Your task to perform on an android device: check the backup settings in the google photos Image 0: 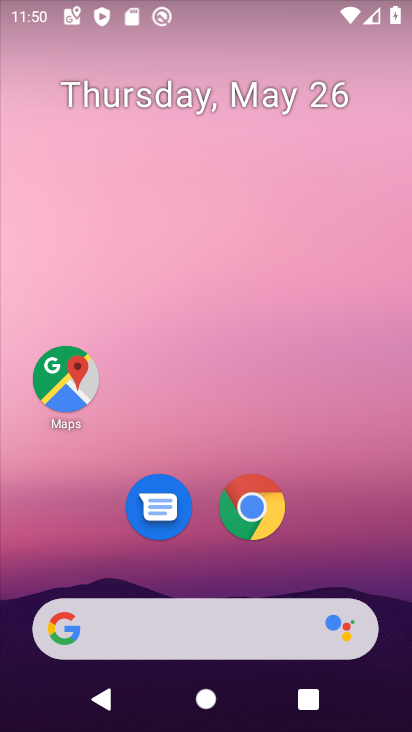
Step 0: drag from (360, 467) to (306, 87)
Your task to perform on an android device: check the backup settings in the google photos Image 1: 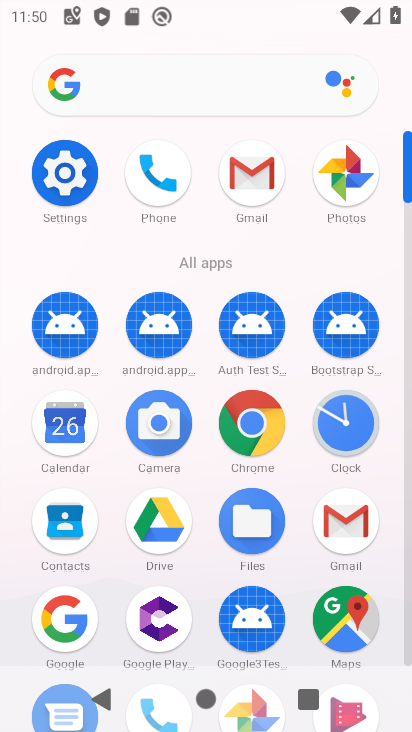
Step 1: drag from (206, 582) to (232, 313)
Your task to perform on an android device: check the backup settings in the google photos Image 2: 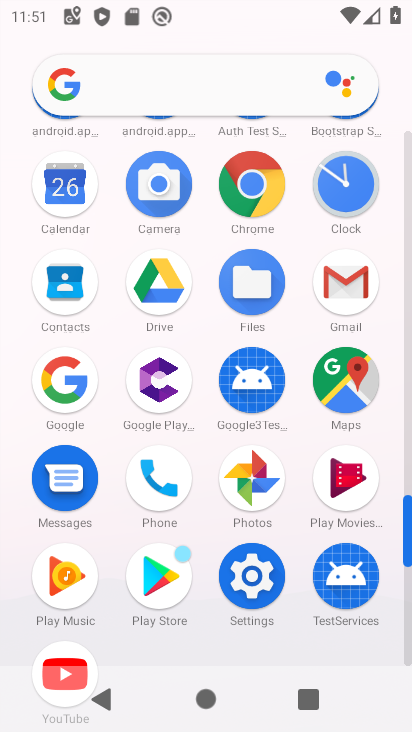
Step 2: click (262, 490)
Your task to perform on an android device: check the backup settings in the google photos Image 3: 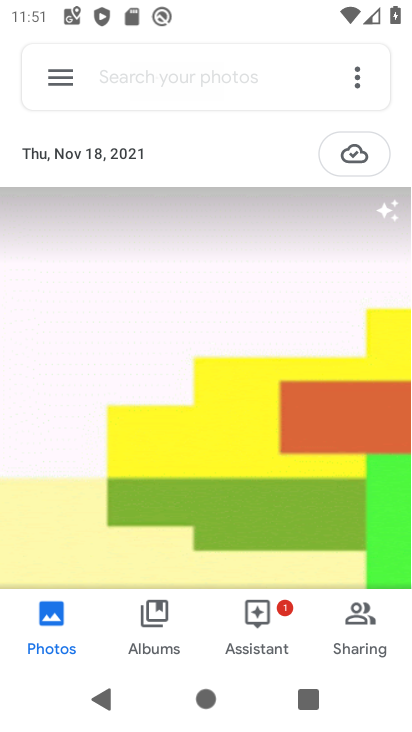
Step 3: click (41, 78)
Your task to perform on an android device: check the backup settings in the google photos Image 4: 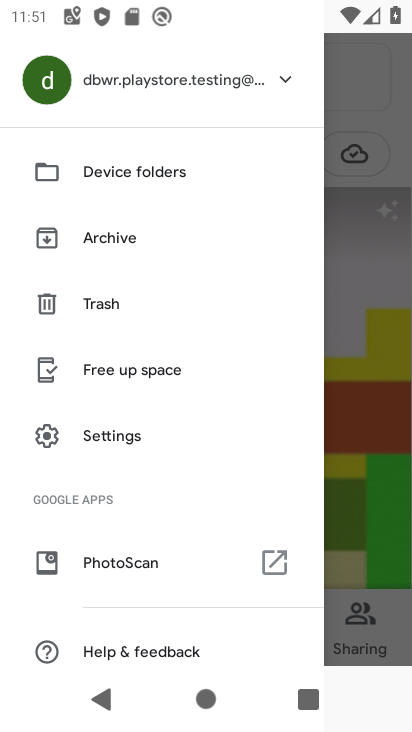
Step 4: drag from (175, 585) to (237, 230)
Your task to perform on an android device: check the backup settings in the google photos Image 5: 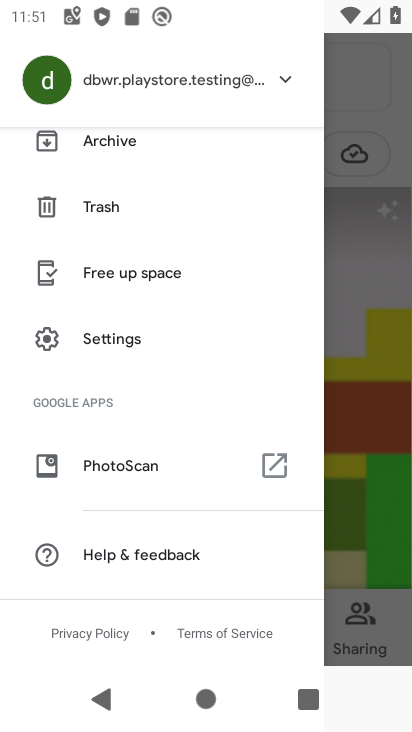
Step 5: click (112, 353)
Your task to perform on an android device: check the backup settings in the google photos Image 6: 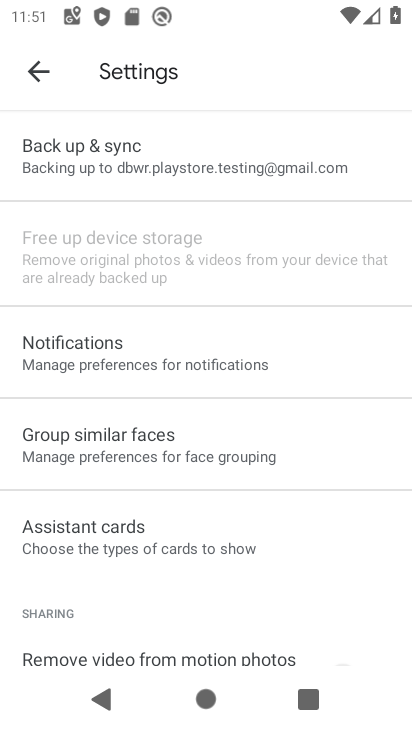
Step 6: click (210, 162)
Your task to perform on an android device: check the backup settings in the google photos Image 7: 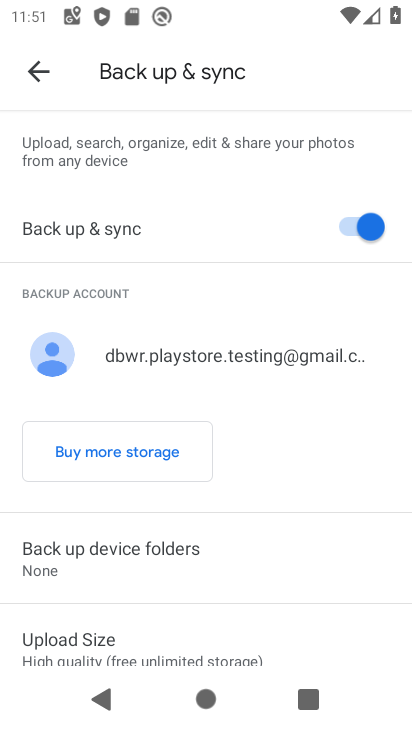
Step 7: task complete